Your task to perform on an android device: See recent photos Image 0: 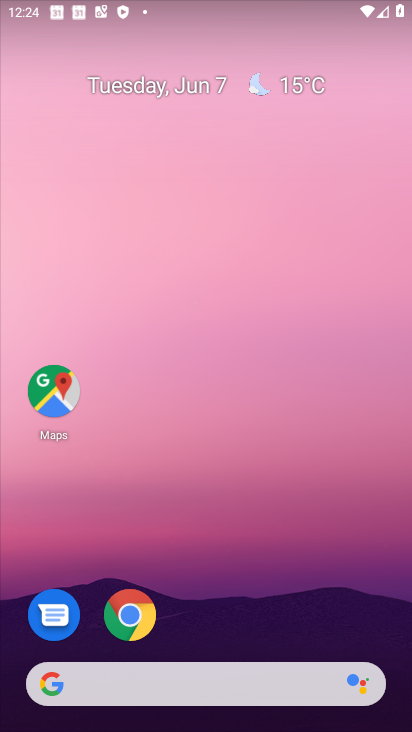
Step 0: drag from (212, 605) to (97, 5)
Your task to perform on an android device: See recent photos Image 1: 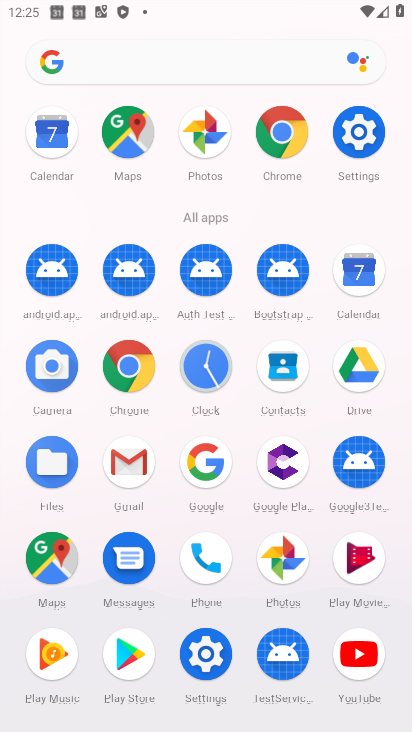
Step 1: click (201, 152)
Your task to perform on an android device: See recent photos Image 2: 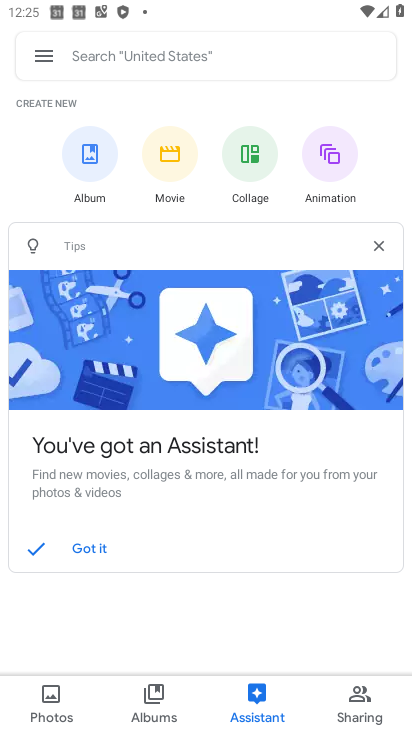
Step 2: click (43, 695)
Your task to perform on an android device: See recent photos Image 3: 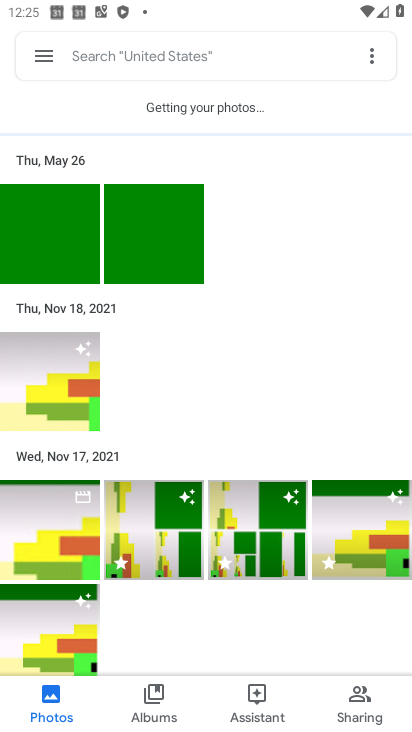
Step 3: task complete